Your task to perform on an android device: Open calendar and show me the fourth week of next month Image 0: 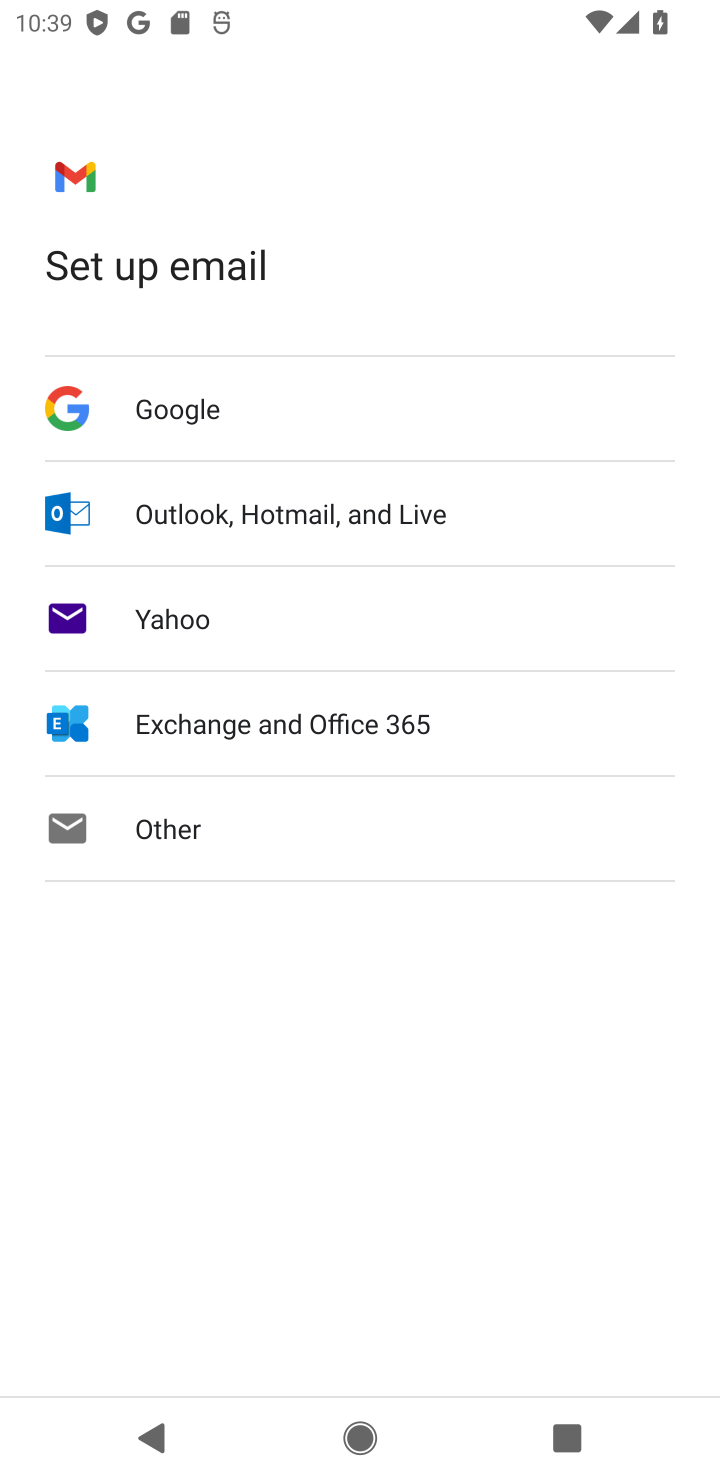
Step 0: press home button
Your task to perform on an android device: Open calendar and show me the fourth week of next month Image 1: 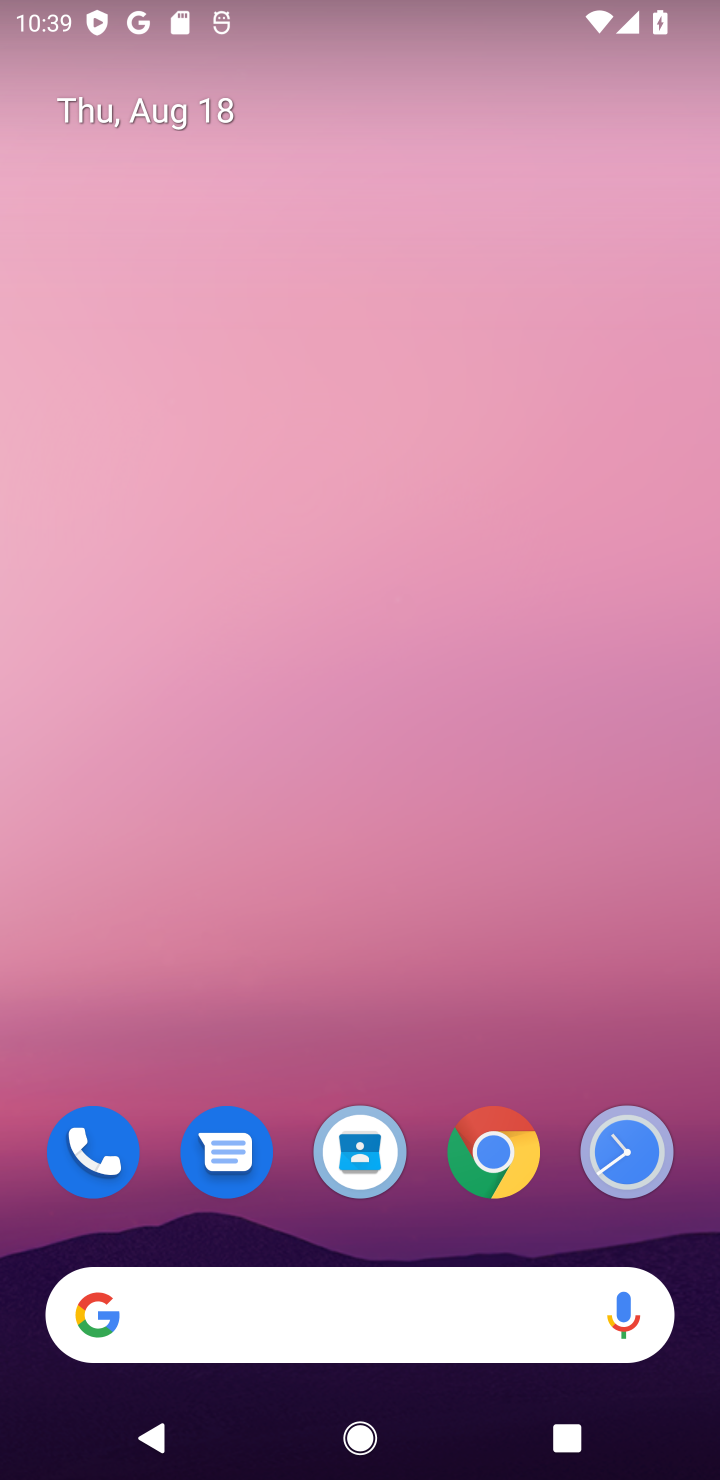
Step 1: drag from (349, 1042) to (524, 0)
Your task to perform on an android device: Open calendar and show me the fourth week of next month Image 2: 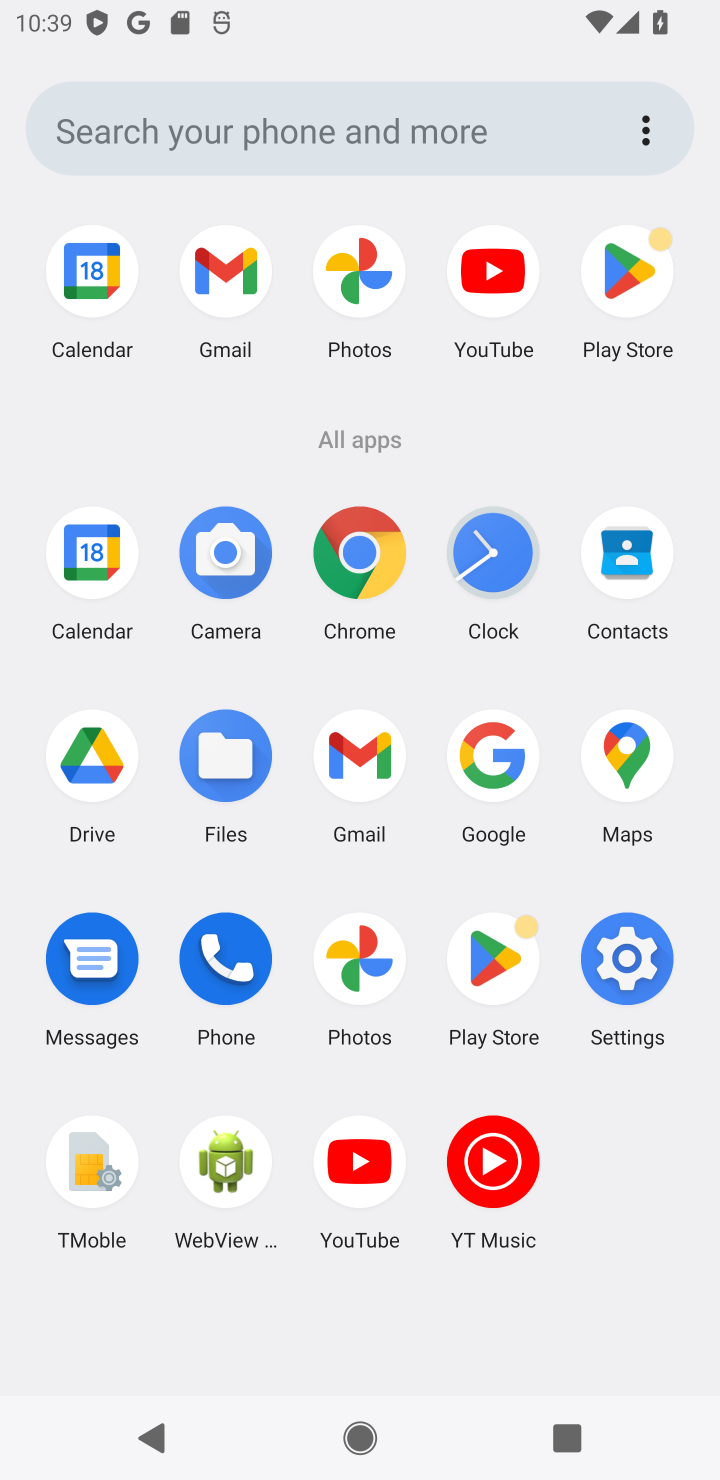
Step 2: click (104, 262)
Your task to perform on an android device: Open calendar and show me the fourth week of next month Image 3: 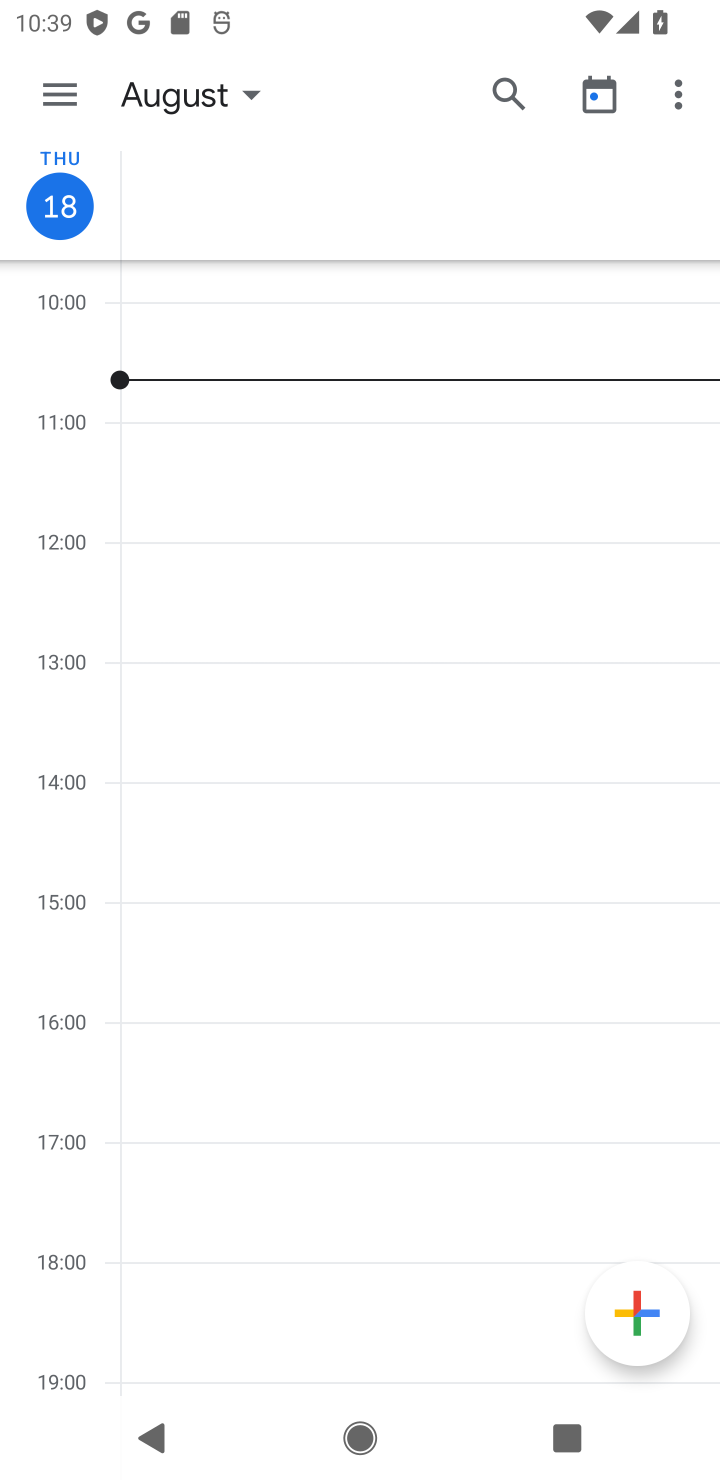
Step 3: click (67, 88)
Your task to perform on an android device: Open calendar and show me the fourth week of next month Image 4: 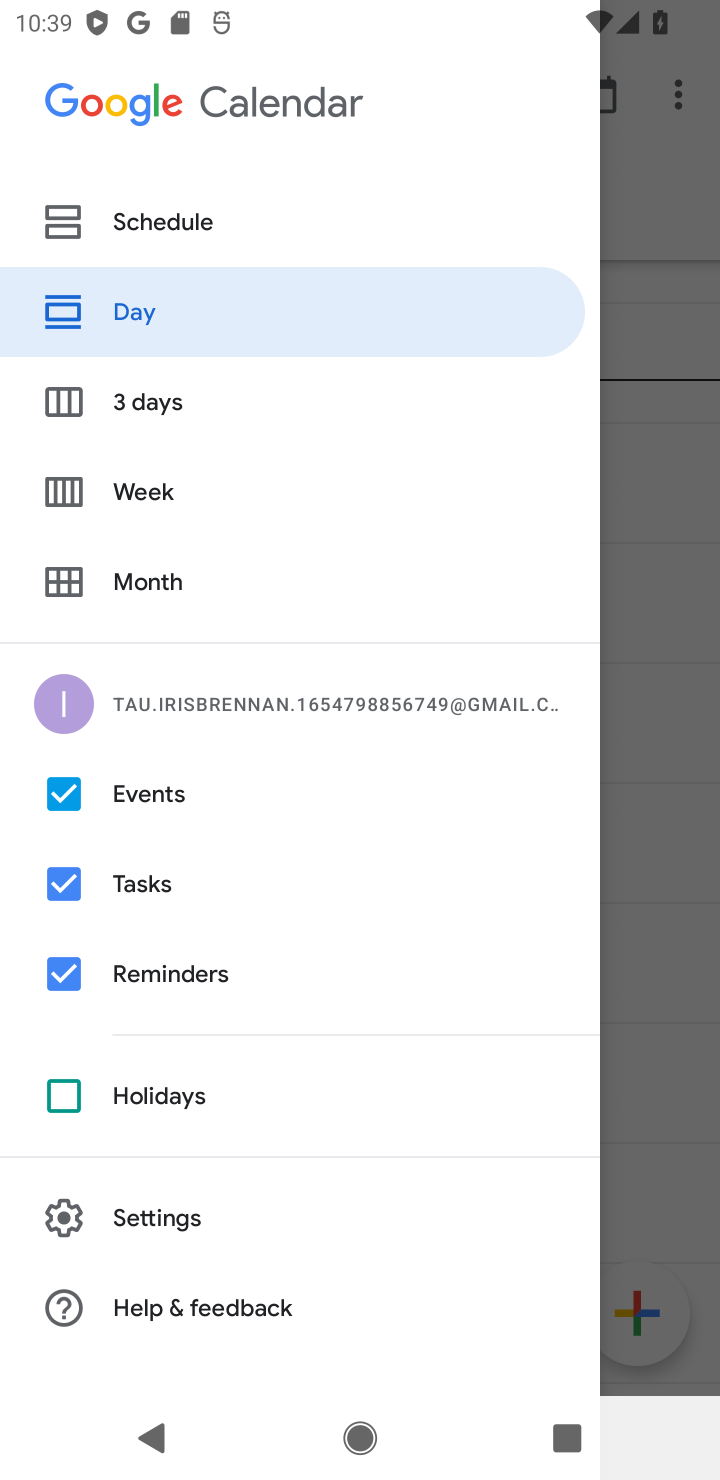
Step 4: click (104, 575)
Your task to perform on an android device: Open calendar and show me the fourth week of next month Image 5: 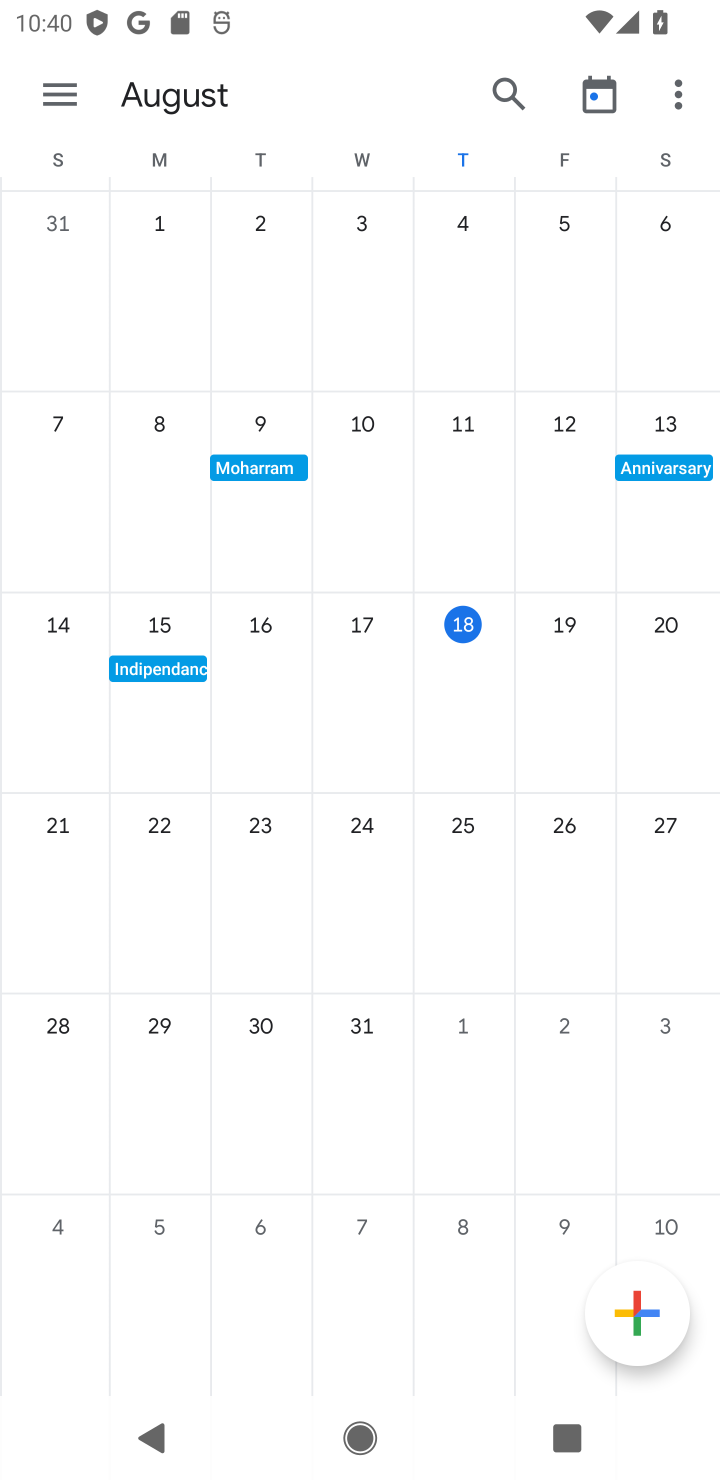
Step 5: drag from (667, 692) to (0, 728)
Your task to perform on an android device: Open calendar and show me the fourth week of next month Image 6: 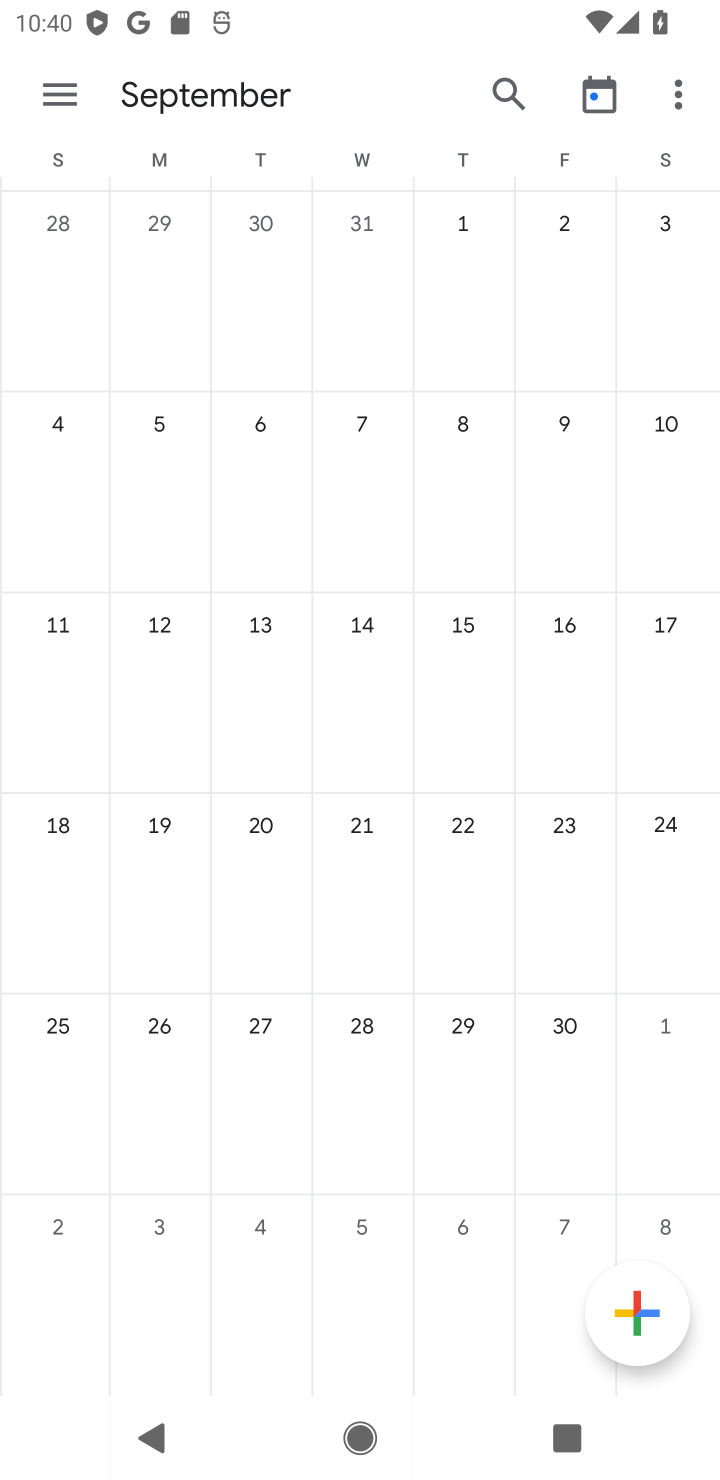
Step 6: click (64, 1022)
Your task to perform on an android device: Open calendar and show me the fourth week of next month Image 7: 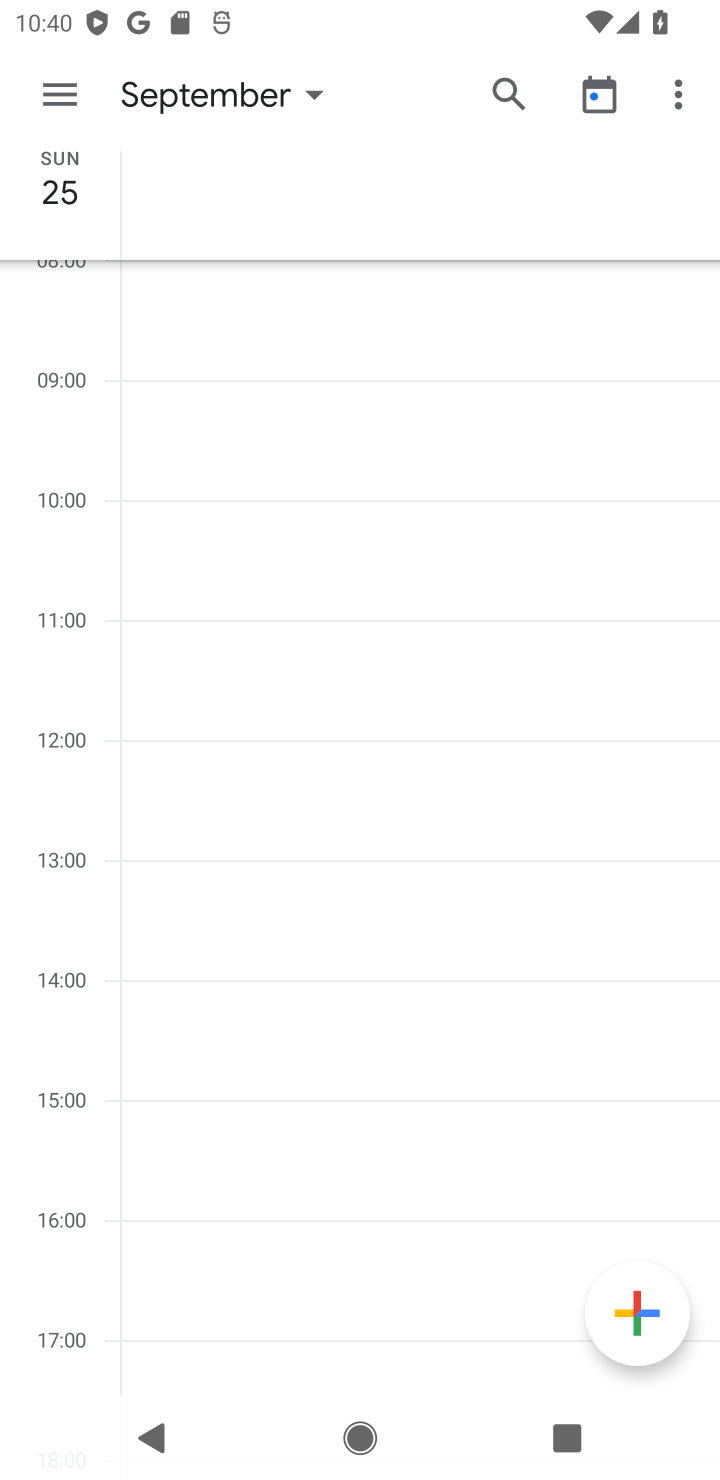
Step 7: click (74, 95)
Your task to perform on an android device: Open calendar and show me the fourth week of next month Image 8: 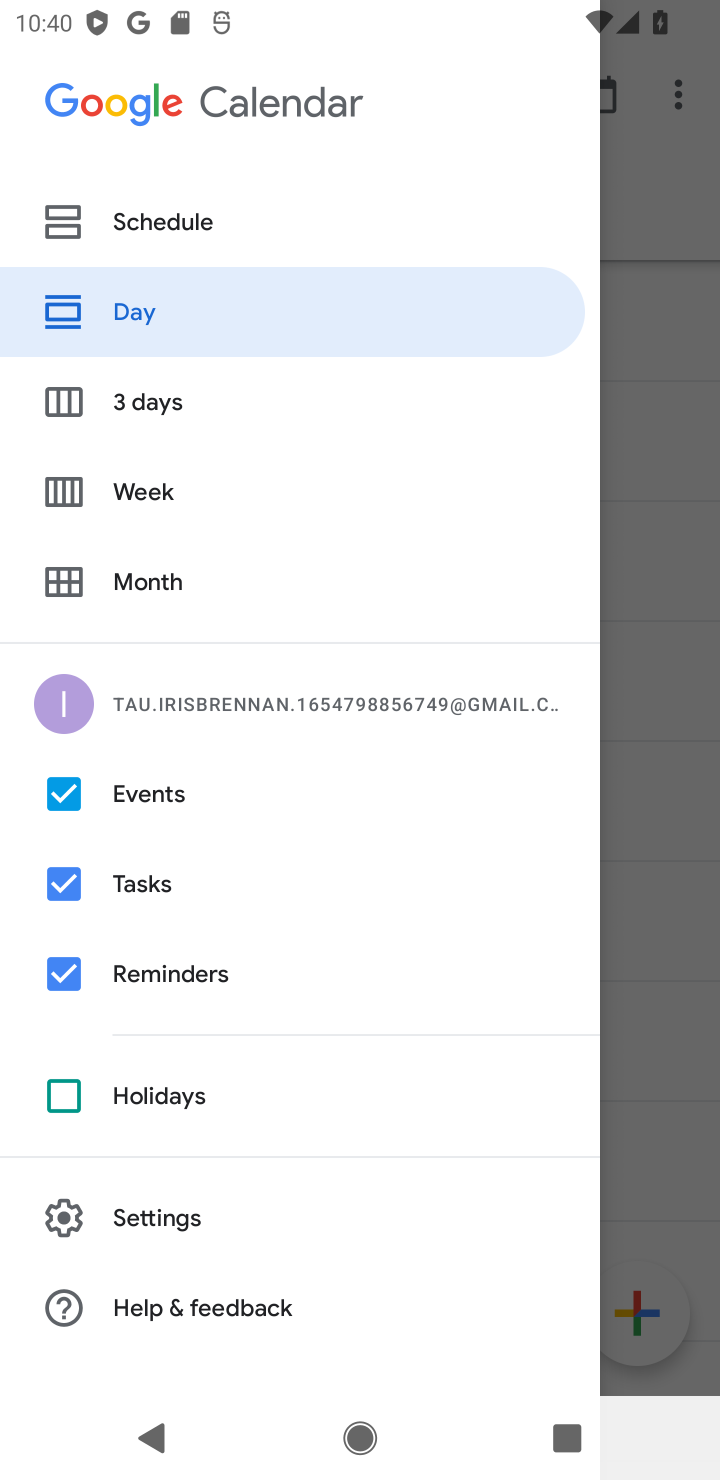
Step 8: click (52, 494)
Your task to perform on an android device: Open calendar and show me the fourth week of next month Image 9: 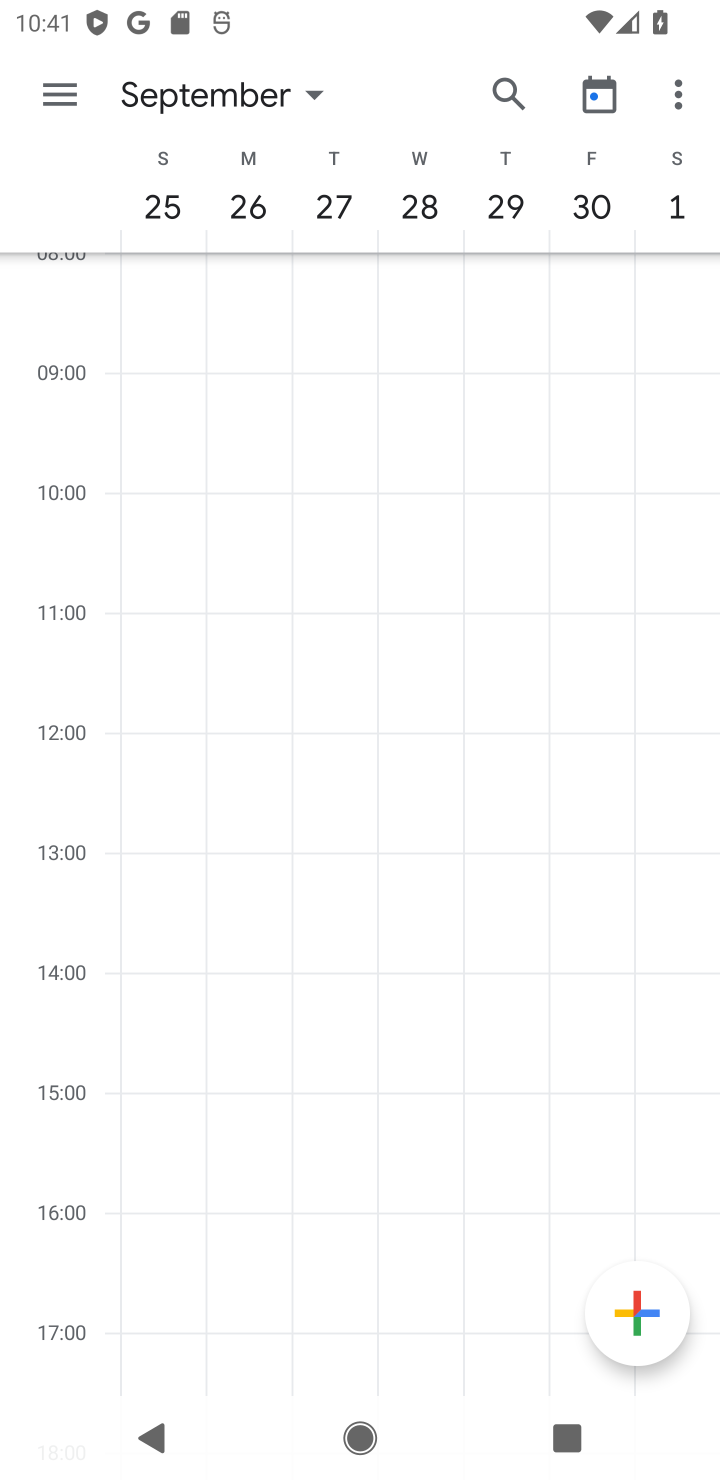
Step 9: task complete